Your task to perform on an android device: turn on translation in the chrome app Image 0: 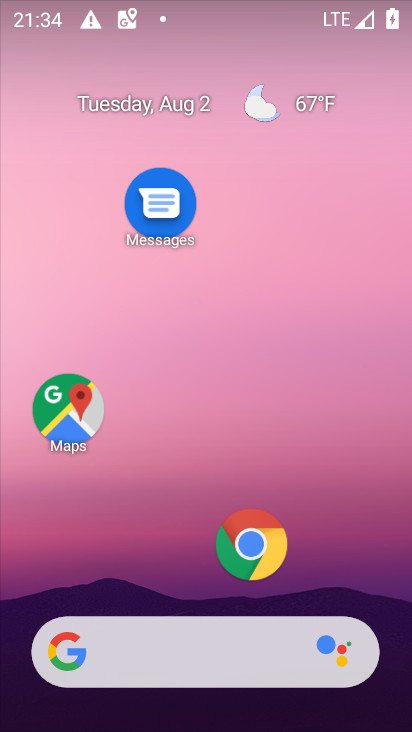
Step 0: click (261, 551)
Your task to perform on an android device: turn on translation in the chrome app Image 1: 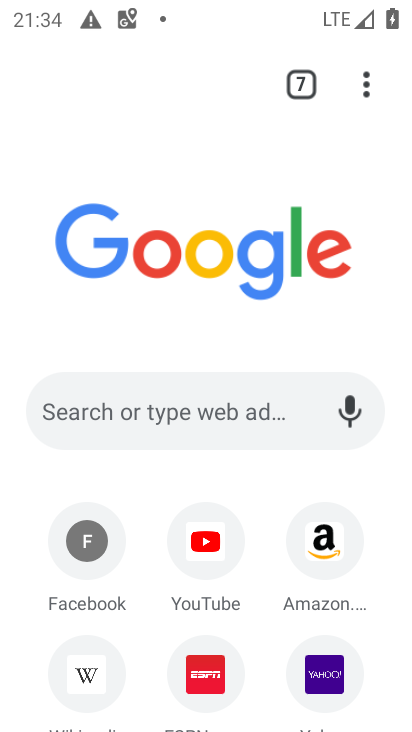
Step 1: click (356, 96)
Your task to perform on an android device: turn on translation in the chrome app Image 2: 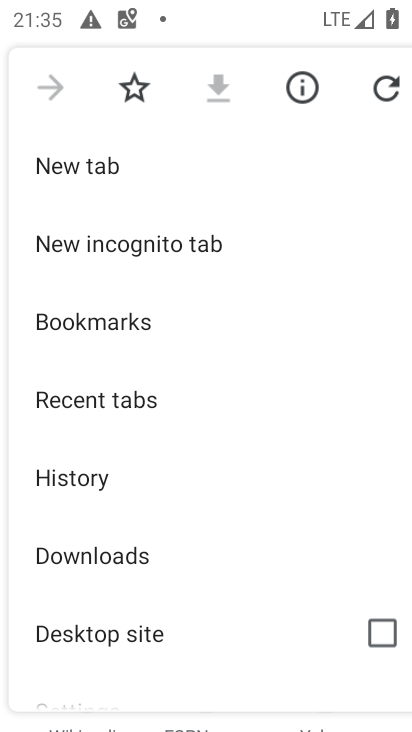
Step 2: drag from (146, 642) to (158, 232)
Your task to perform on an android device: turn on translation in the chrome app Image 3: 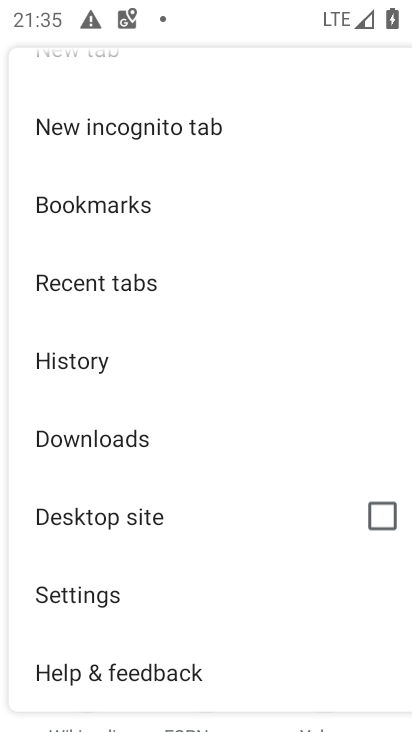
Step 3: click (114, 592)
Your task to perform on an android device: turn on translation in the chrome app Image 4: 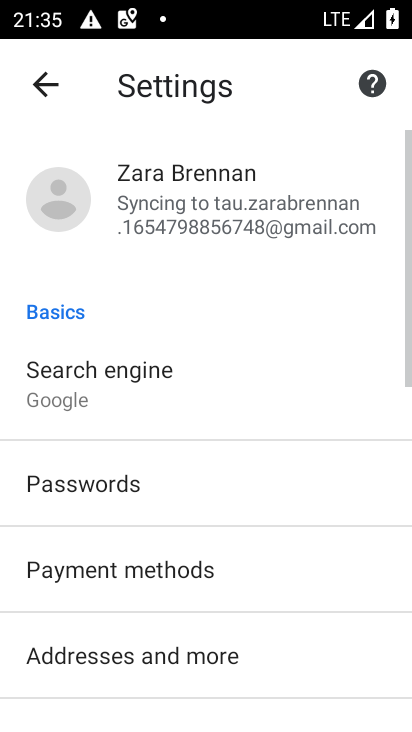
Step 4: drag from (244, 660) to (233, 289)
Your task to perform on an android device: turn on translation in the chrome app Image 5: 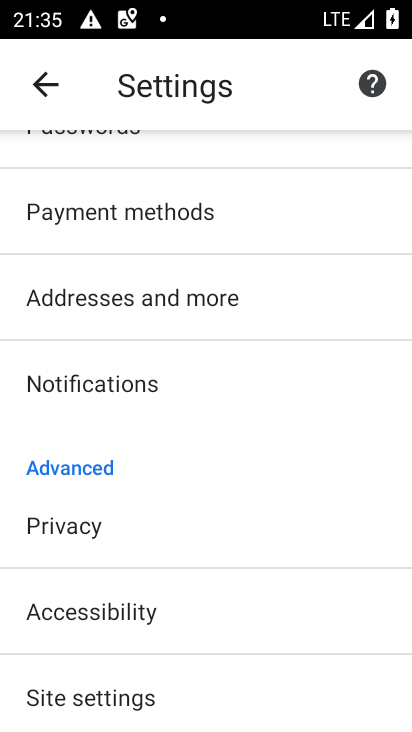
Step 5: drag from (172, 631) to (187, 338)
Your task to perform on an android device: turn on translation in the chrome app Image 6: 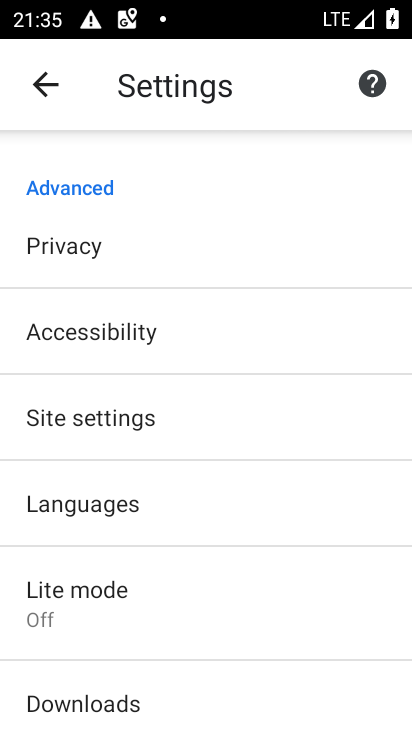
Step 6: click (136, 518)
Your task to perform on an android device: turn on translation in the chrome app Image 7: 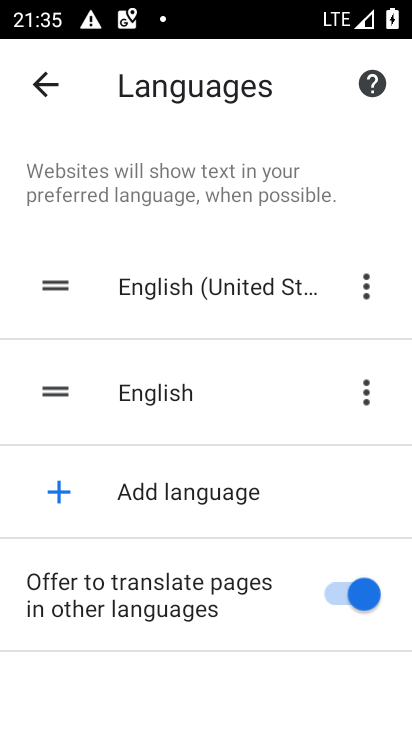
Step 7: task complete